Your task to perform on an android device: turn off priority inbox in the gmail app Image 0: 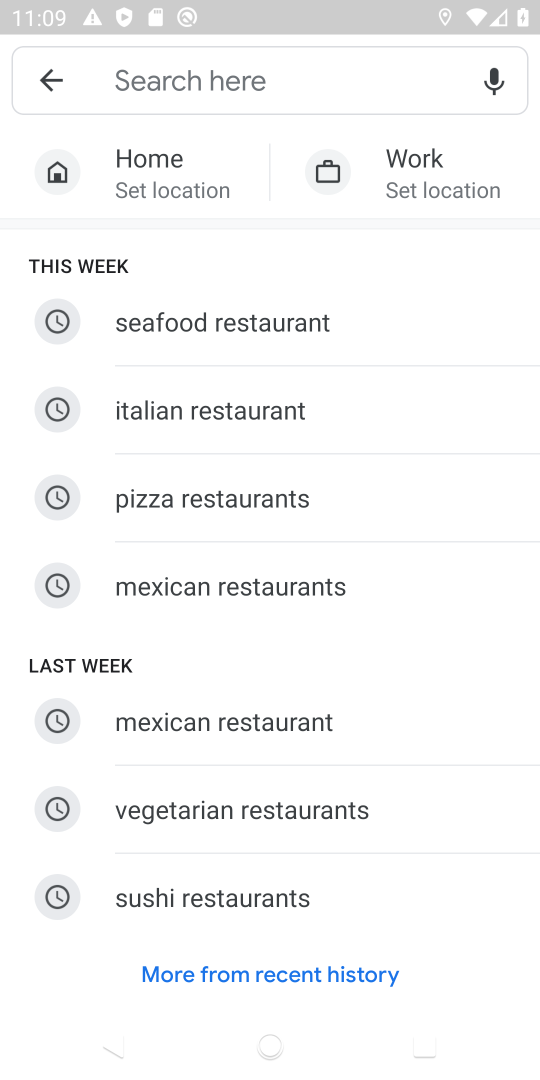
Step 0: drag from (271, 860) to (356, 0)
Your task to perform on an android device: turn off priority inbox in the gmail app Image 1: 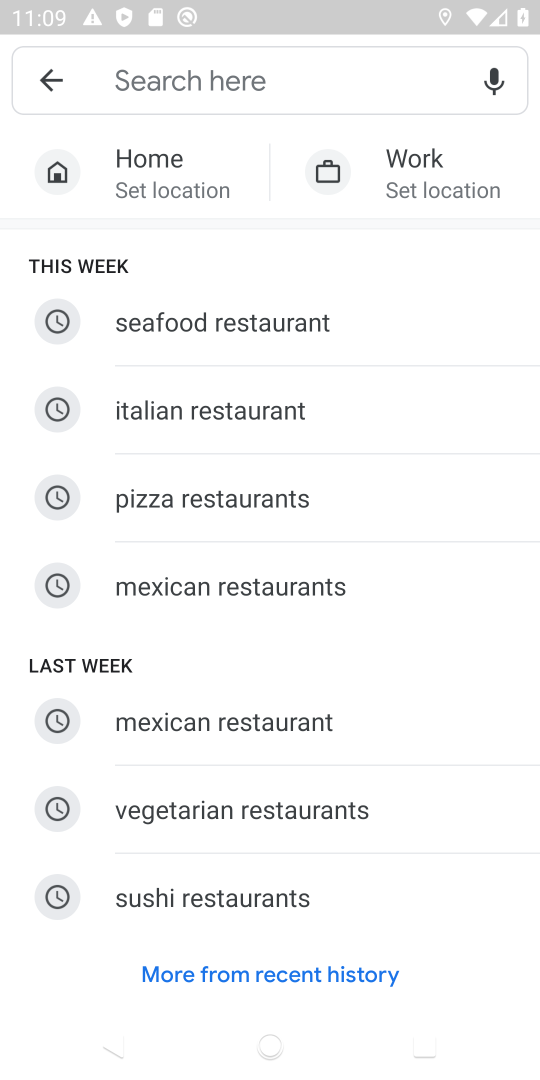
Step 1: press home button
Your task to perform on an android device: turn off priority inbox in the gmail app Image 2: 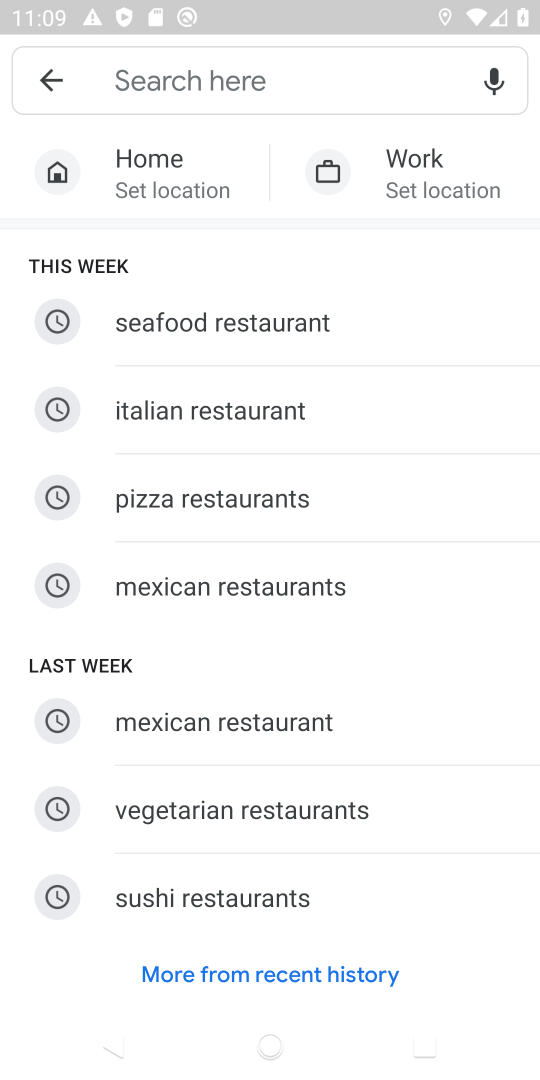
Step 2: drag from (300, 327) to (256, 11)
Your task to perform on an android device: turn off priority inbox in the gmail app Image 3: 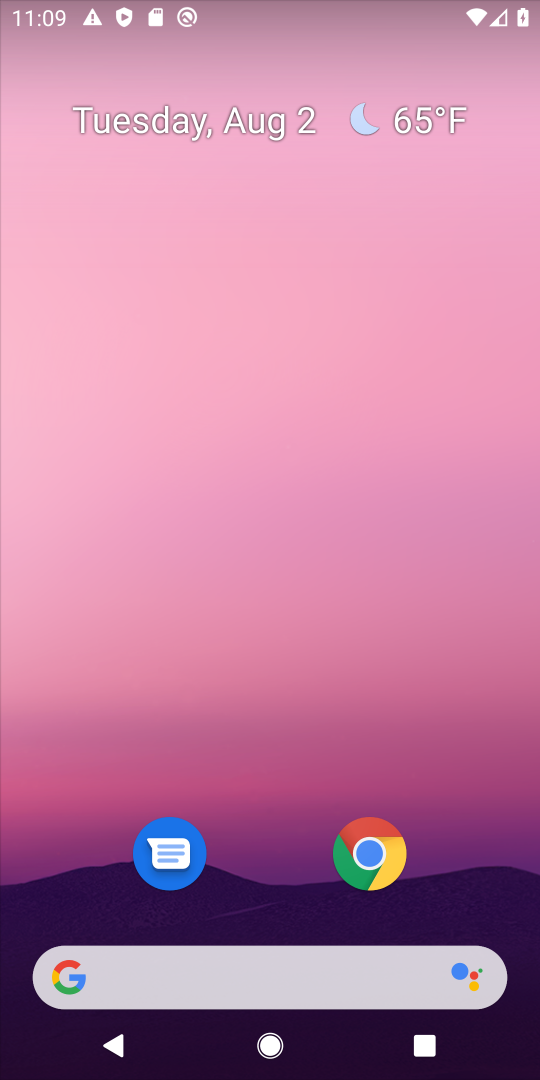
Step 3: drag from (306, 757) to (314, 0)
Your task to perform on an android device: turn off priority inbox in the gmail app Image 4: 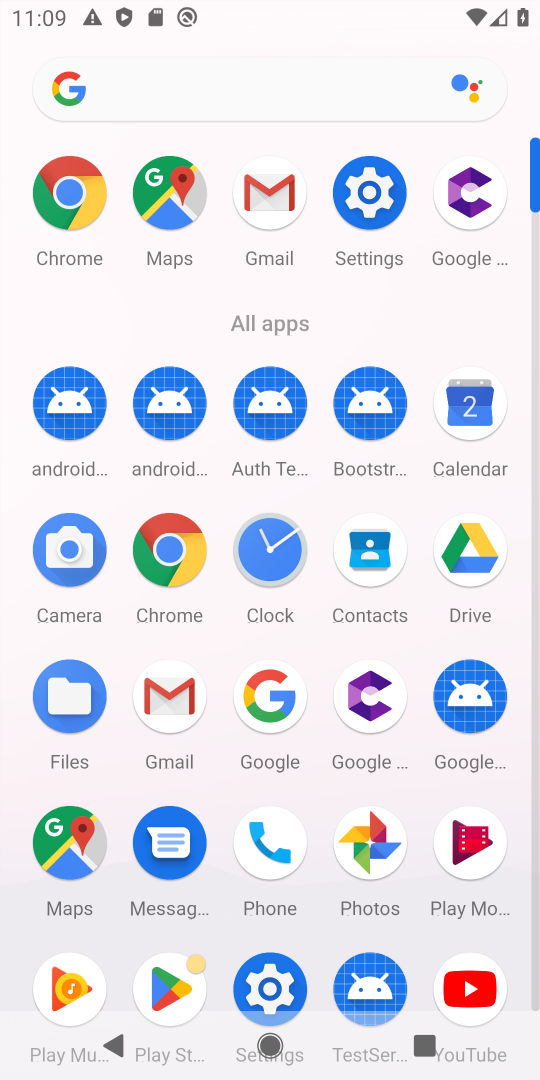
Step 4: click (272, 209)
Your task to perform on an android device: turn off priority inbox in the gmail app Image 5: 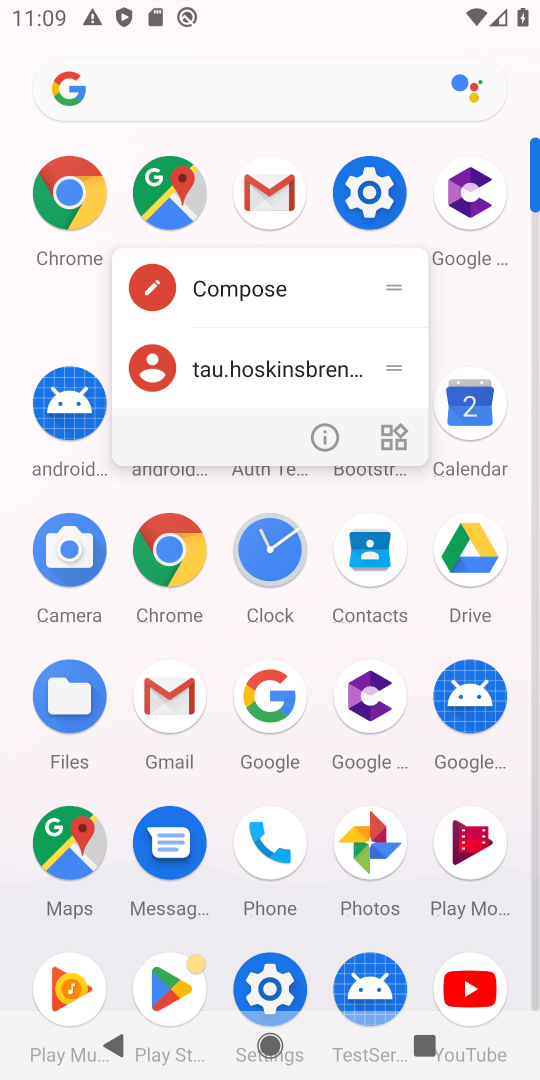
Step 5: click (272, 209)
Your task to perform on an android device: turn off priority inbox in the gmail app Image 6: 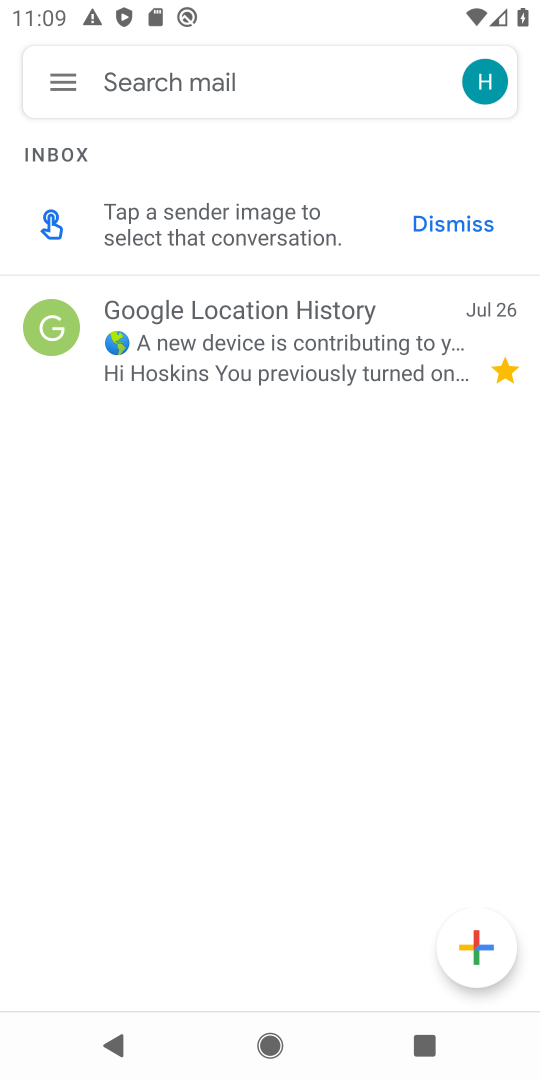
Step 6: click (50, 66)
Your task to perform on an android device: turn off priority inbox in the gmail app Image 7: 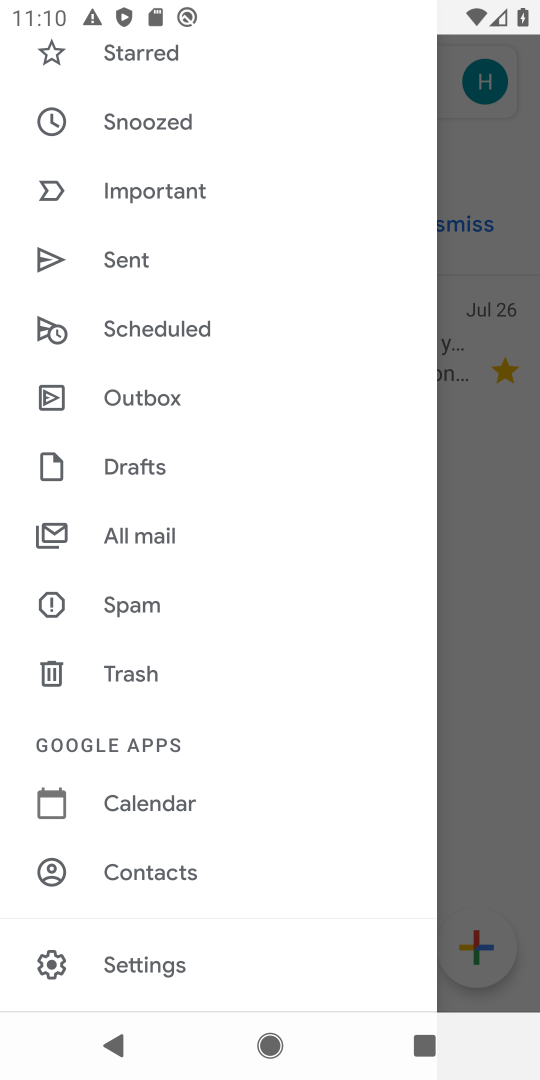
Step 7: click (141, 958)
Your task to perform on an android device: turn off priority inbox in the gmail app Image 8: 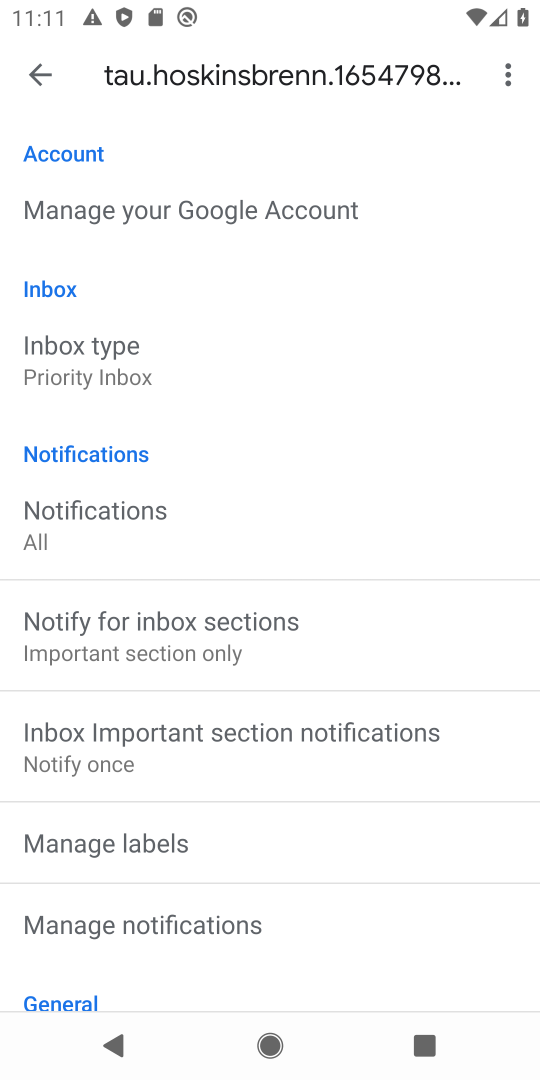
Step 8: click (165, 341)
Your task to perform on an android device: turn off priority inbox in the gmail app Image 9: 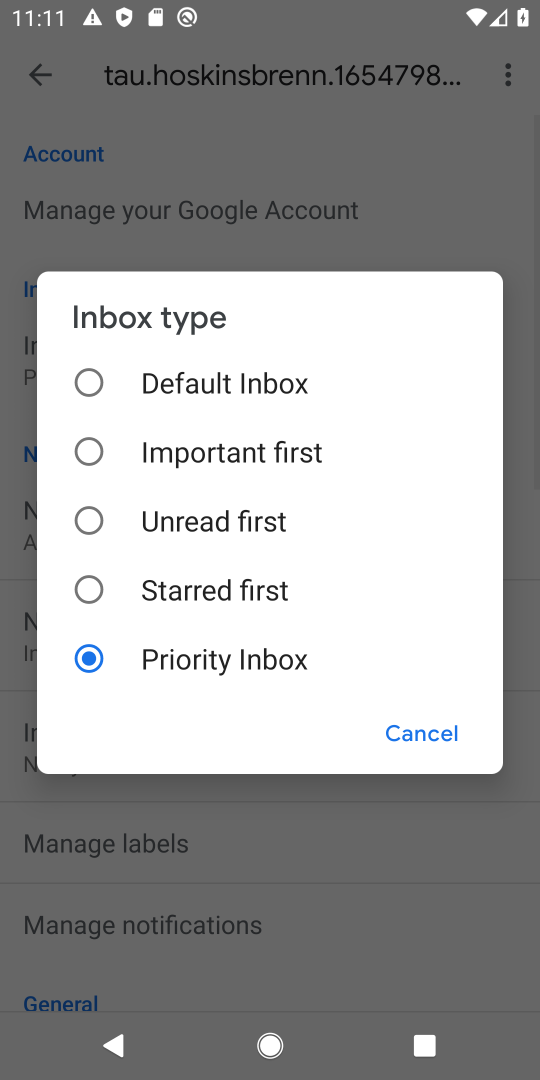
Step 9: click (173, 371)
Your task to perform on an android device: turn off priority inbox in the gmail app Image 10: 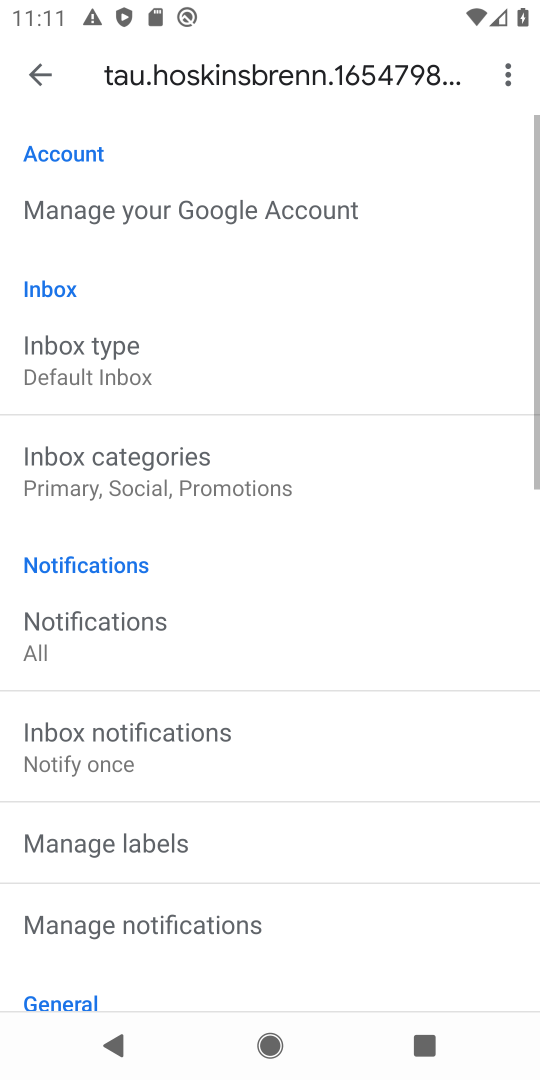
Step 10: task complete